Your task to perform on an android device: Do I have any events today? Image 0: 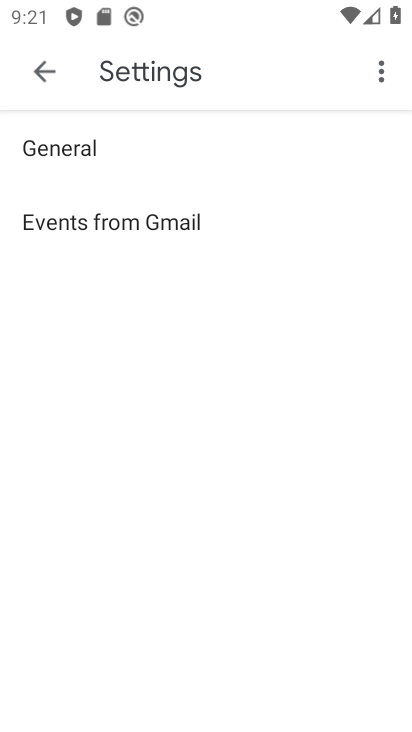
Step 0: press home button
Your task to perform on an android device: Do I have any events today? Image 1: 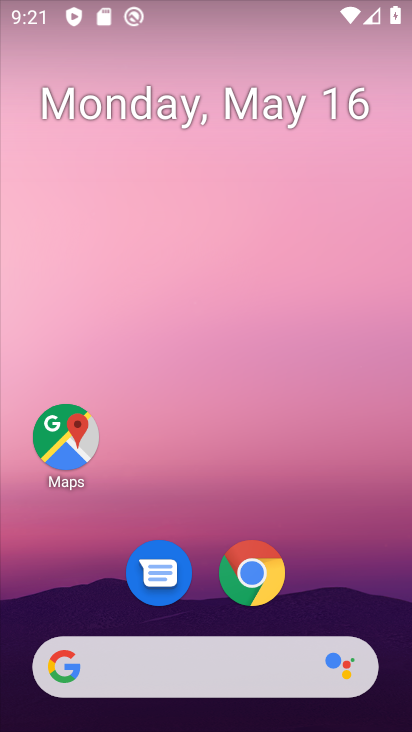
Step 1: click (160, 114)
Your task to perform on an android device: Do I have any events today? Image 2: 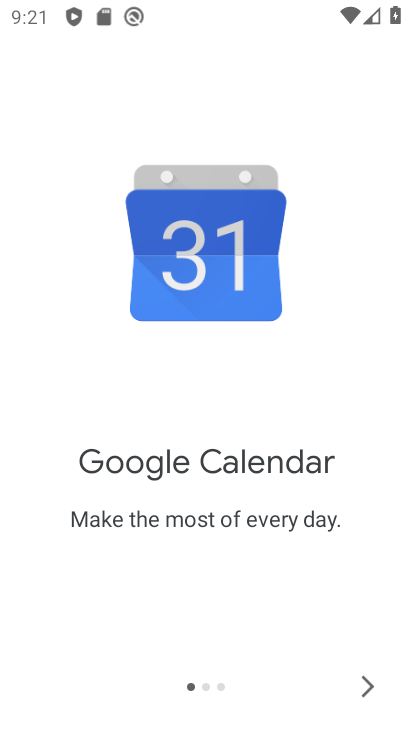
Step 2: click (357, 692)
Your task to perform on an android device: Do I have any events today? Image 3: 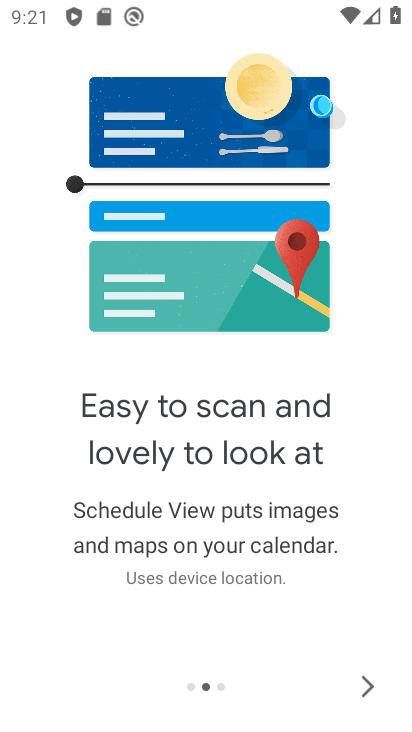
Step 3: click (357, 692)
Your task to perform on an android device: Do I have any events today? Image 4: 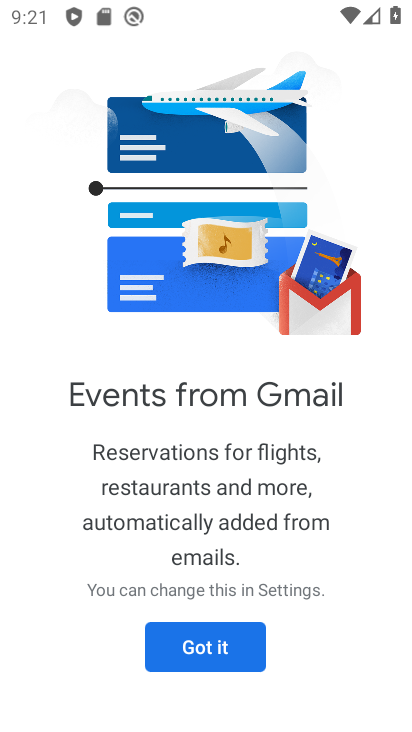
Step 4: click (205, 652)
Your task to perform on an android device: Do I have any events today? Image 5: 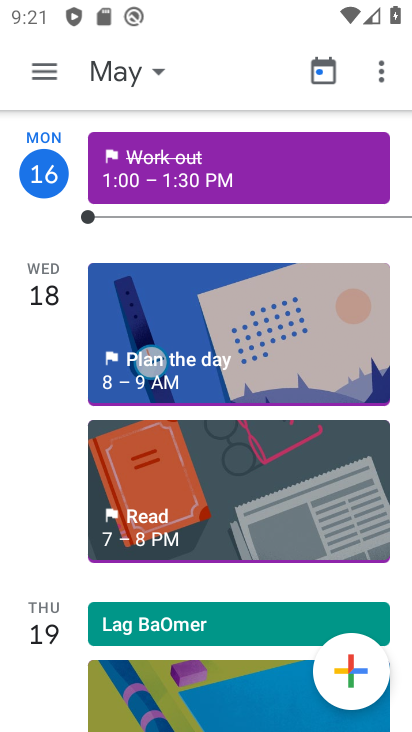
Step 5: task complete